Your task to perform on an android device: open a new tab in the chrome app Image 0: 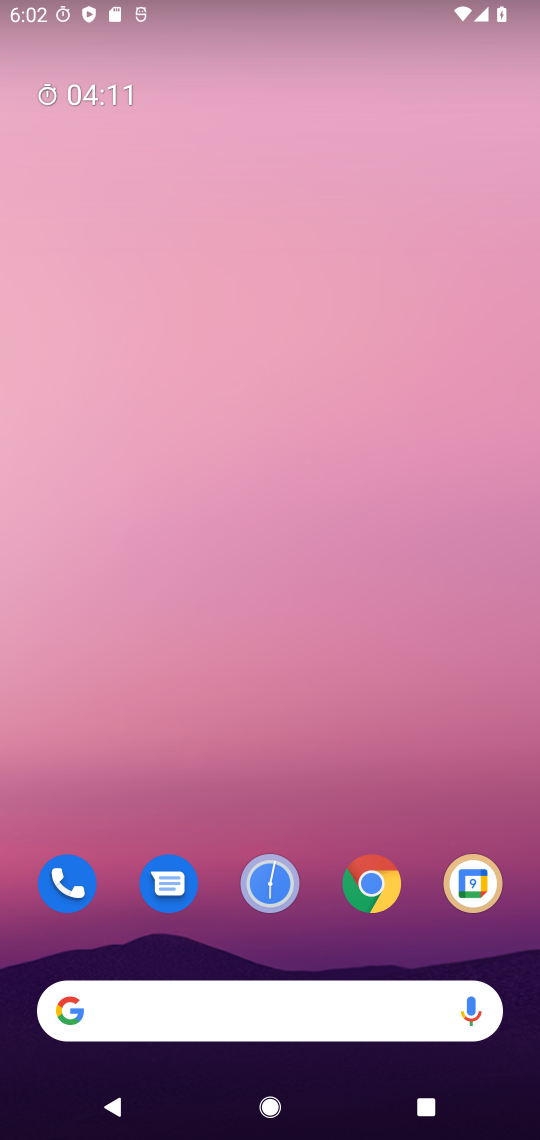
Step 0: click (368, 880)
Your task to perform on an android device: open a new tab in the chrome app Image 1: 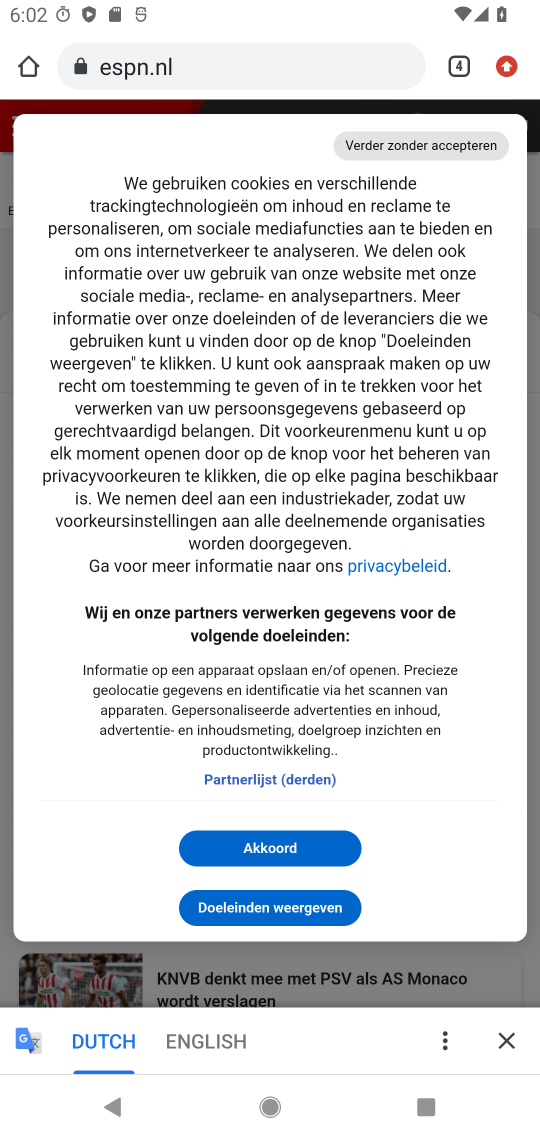
Step 1: click (458, 52)
Your task to perform on an android device: open a new tab in the chrome app Image 2: 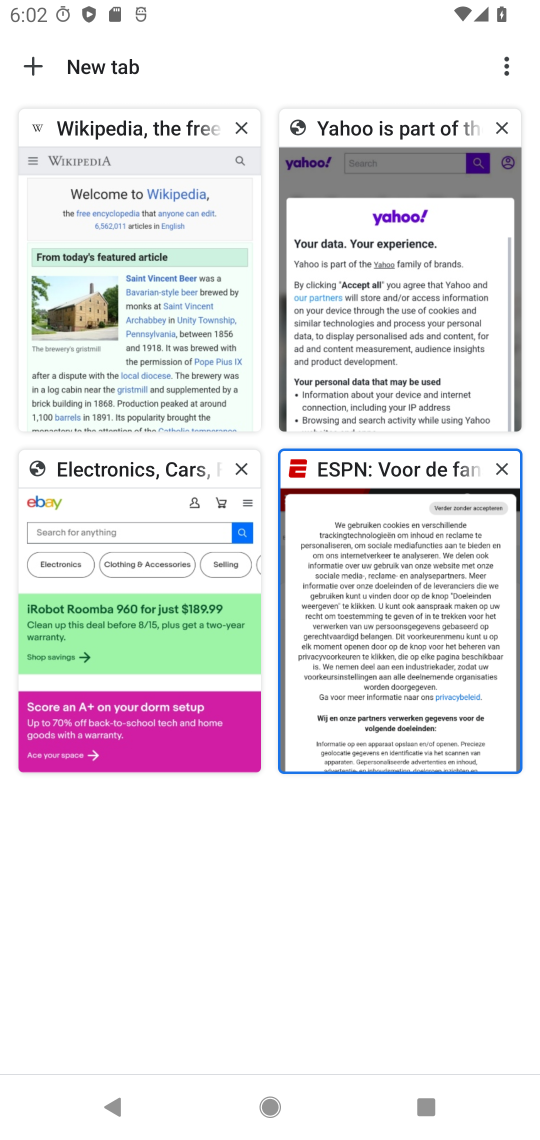
Step 2: click (33, 70)
Your task to perform on an android device: open a new tab in the chrome app Image 3: 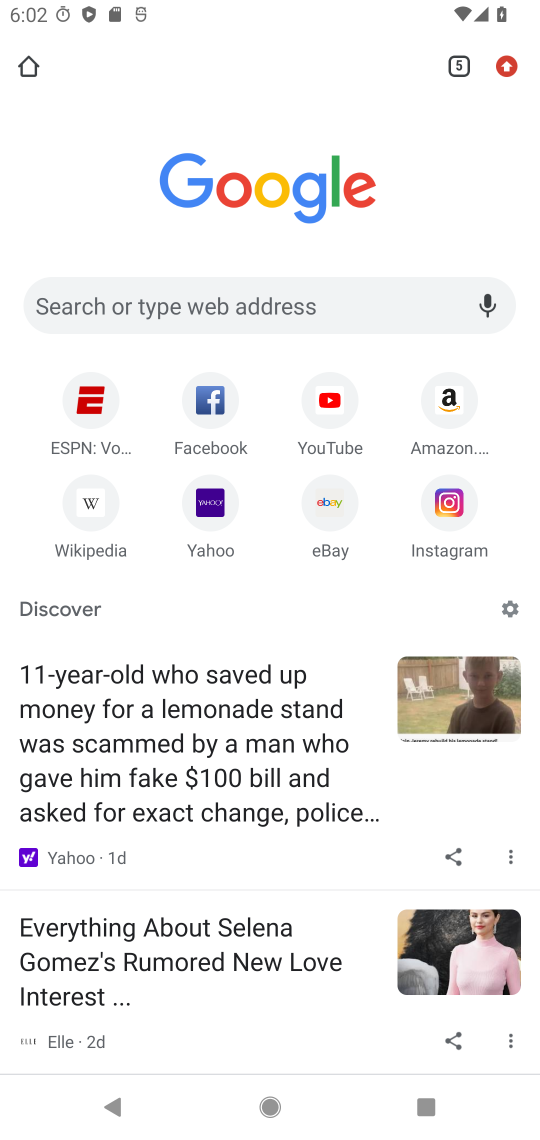
Step 3: task complete